Your task to perform on an android device: Open notification settings Image 0: 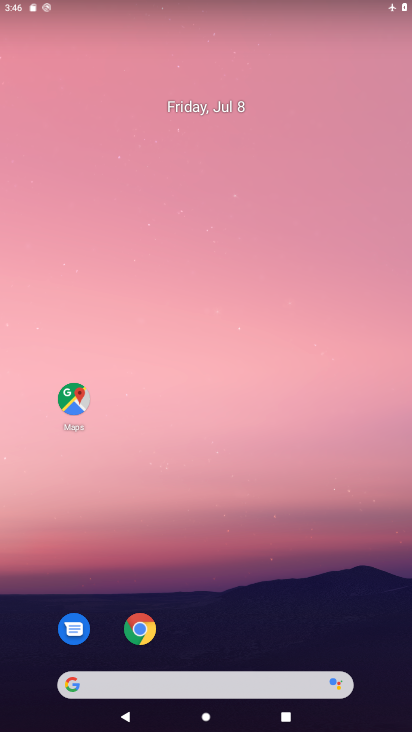
Step 0: drag from (207, 612) to (127, 192)
Your task to perform on an android device: Open notification settings Image 1: 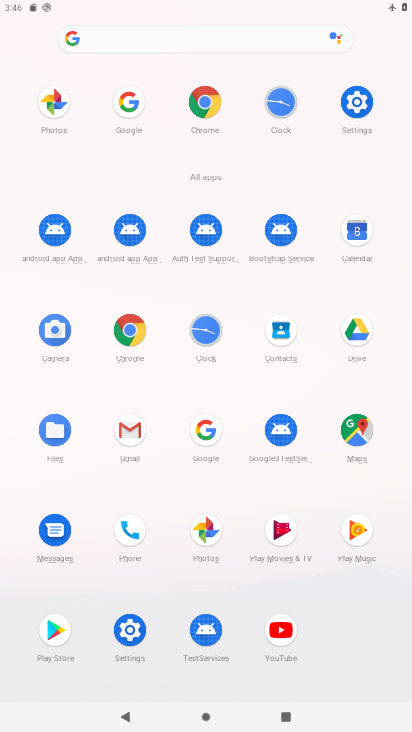
Step 1: click (367, 94)
Your task to perform on an android device: Open notification settings Image 2: 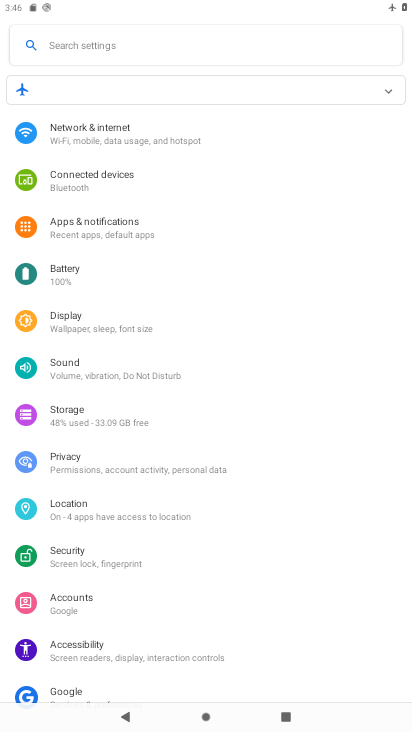
Step 2: click (123, 235)
Your task to perform on an android device: Open notification settings Image 3: 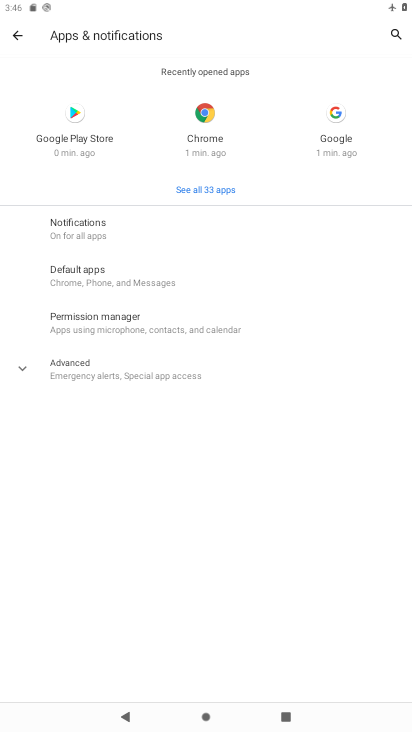
Step 3: click (123, 235)
Your task to perform on an android device: Open notification settings Image 4: 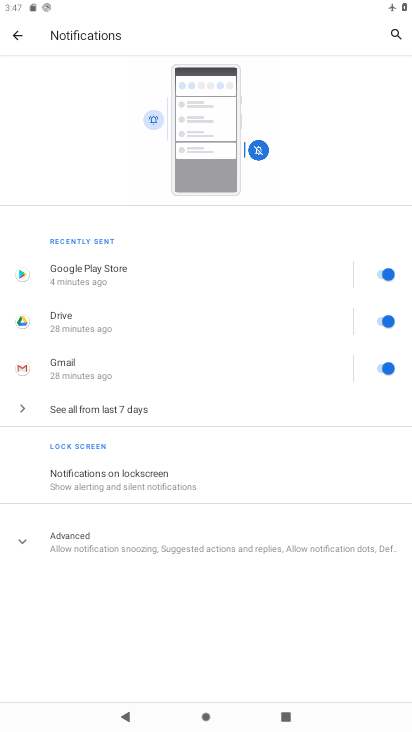
Step 4: click (116, 473)
Your task to perform on an android device: Open notification settings Image 5: 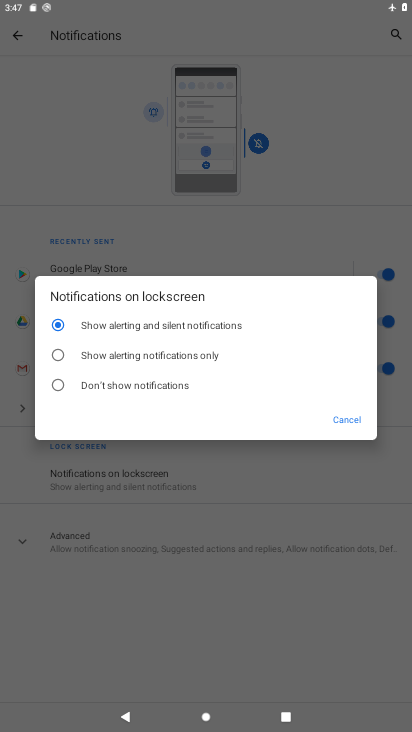
Step 5: click (371, 173)
Your task to perform on an android device: Open notification settings Image 6: 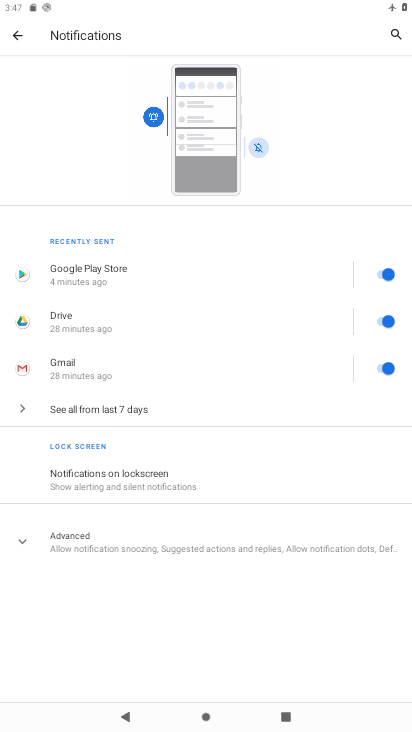
Step 6: task complete